Your task to perform on an android device: make emails show in primary in the gmail app Image 0: 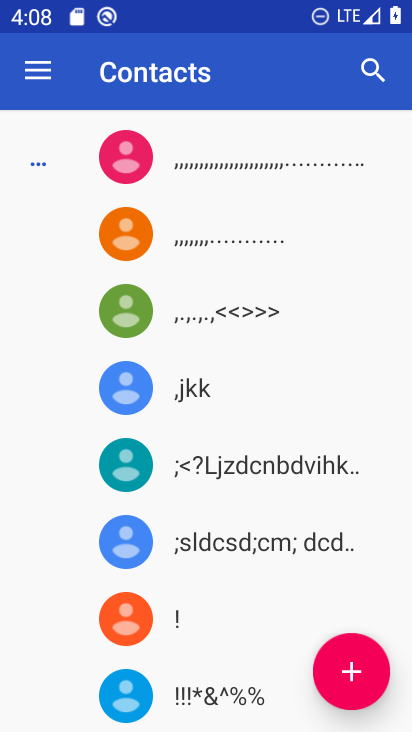
Step 0: press home button
Your task to perform on an android device: make emails show in primary in the gmail app Image 1: 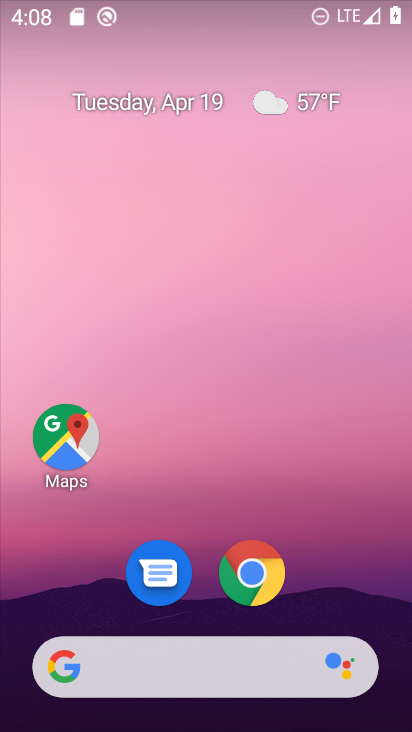
Step 1: drag from (344, 598) to (377, 17)
Your task to perform on an android device: make emails show in primary in the gmail app Image 2: 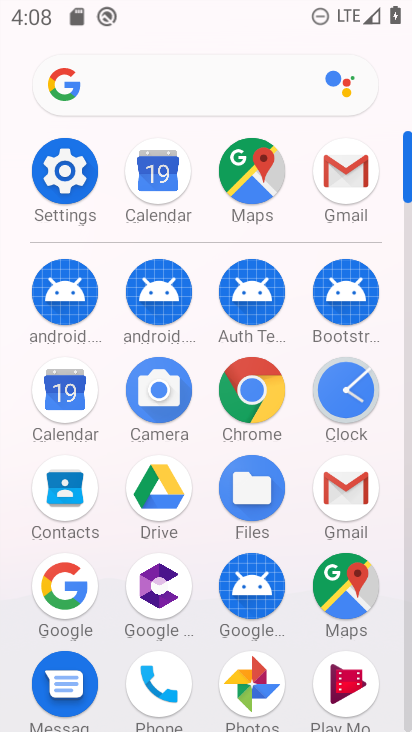
Step 2: click (350, 186)
Your task to perform on an android device: make emails show in primary in the gmail app Image 3: 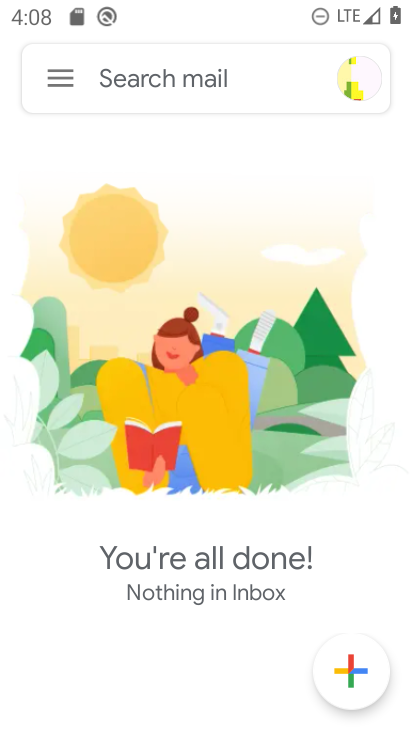
Step 3: click (62, 87)
Your task to perform on an android device: make emails show in primary in the gmail app Image 4: 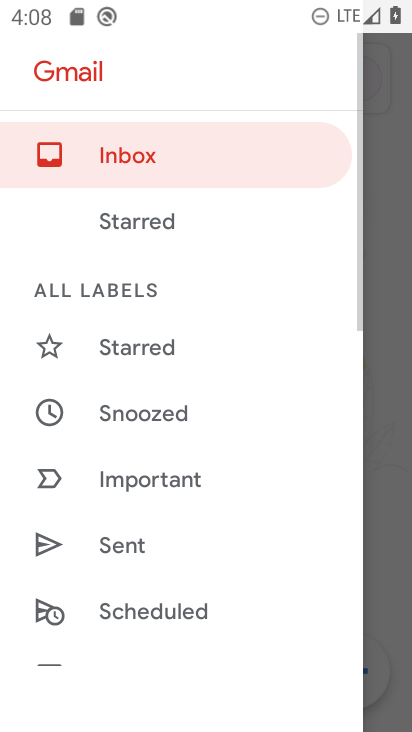
Step 4: drag from (197, 545) to (204, 126)
Your task to perform on an android device: make emails show in primary in the gmail app Image 5: 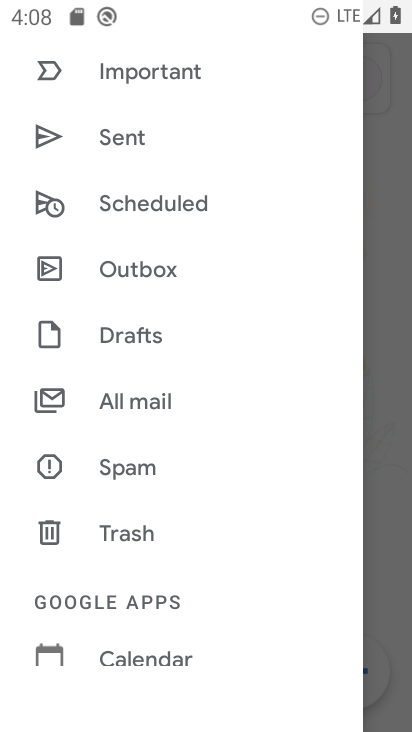
Step 5: drag from (203, 556) to (189, 130)
Your task to perform on an android device: make emails show in primary in the gmail app Image 6: 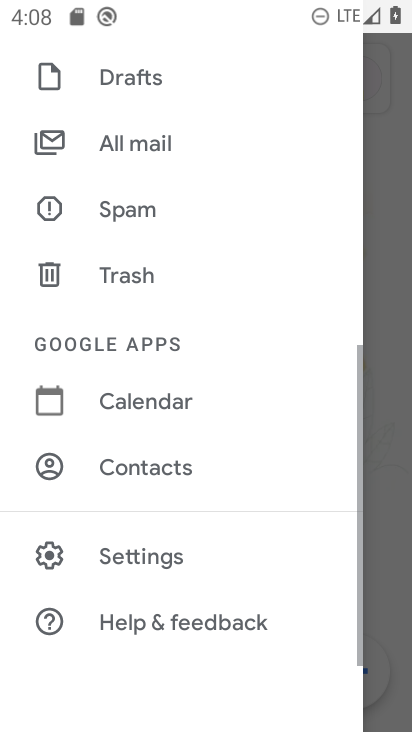
Step 6: click (122, 558)
Your task to perform on an android device: make emails show in primary in the gmail app Image 7: 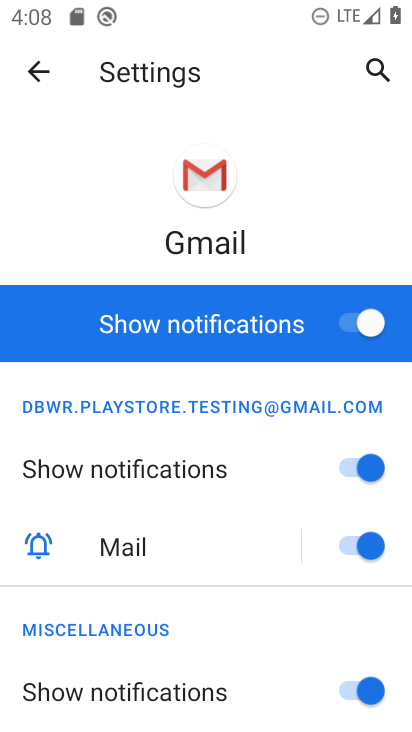
Step 7: drag from (177, 555) to (174, 164)
Your task to perform on an android device: make emails show in primary in the gmail app Image 8: 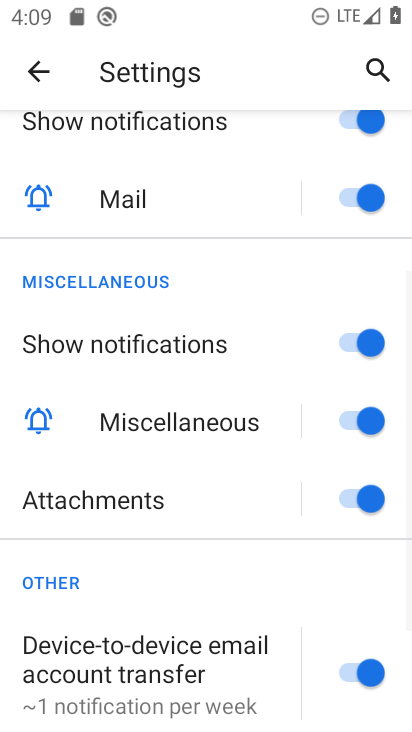
Step 8: drag from (141, 500) to (126, 110)
Your task to perform on an android device: make emails show in primary in the gmail app Image 9: 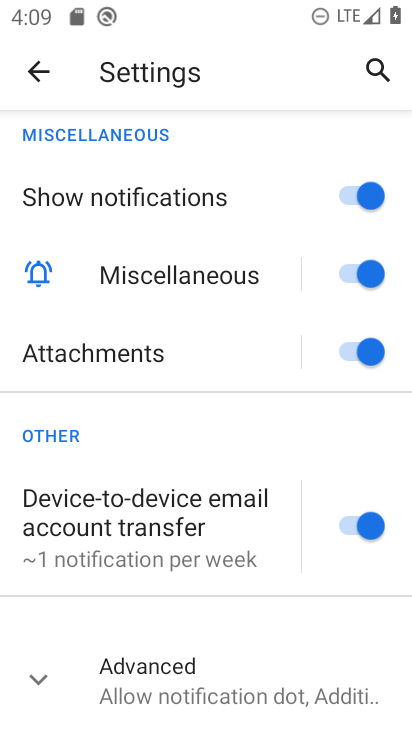
Step 9: drag from (151, 446) to (158, 687)
Your task to perform on an android device: make emails show in primary in the gmail app Image 10: 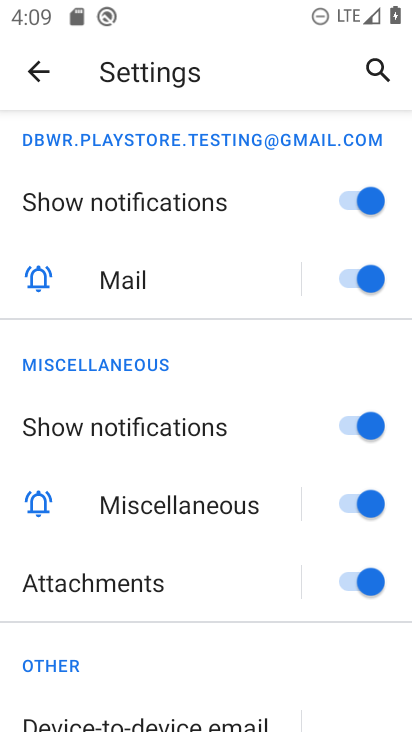
Step 10: drag from (132, 298) to (146, 648)
Your task to perform on an android device: make emails show in primary in the gmail app Image 11: 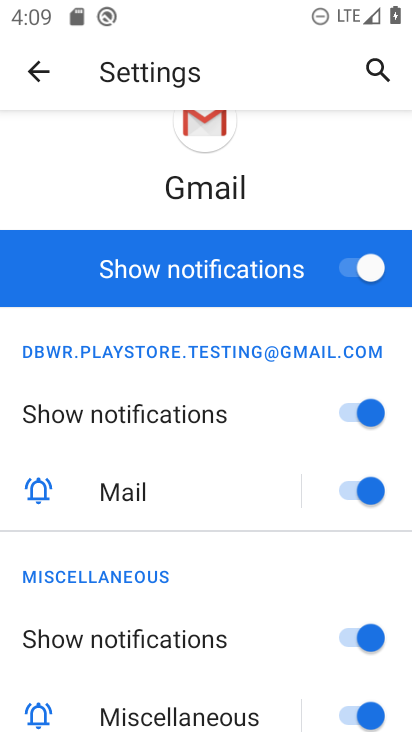
Step 11: click (23, 74)
Your task to perform on an android device: make emails show in primary in the gmail app Image 12: 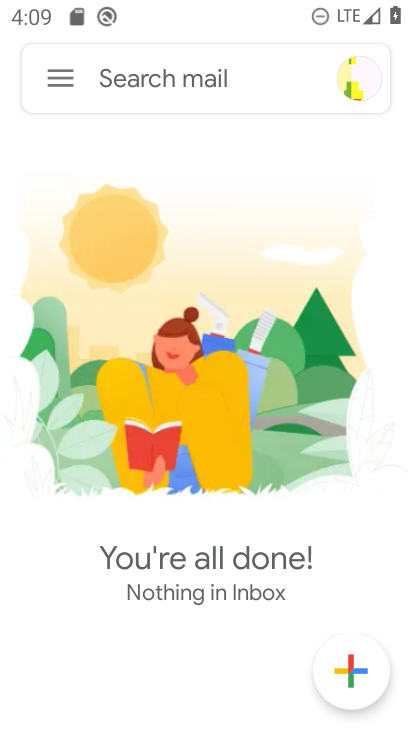
Step 12: click (66, 84)
Your task to perform on an android device: make emails show in primary in the gmail app Image 13: 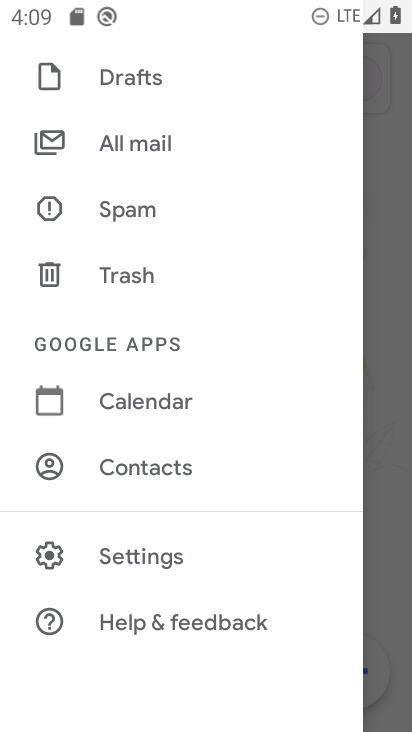
Step 13: click (113, 547)
Your task to perform on an android device: make emails show in primary in the gmail app Image 14: 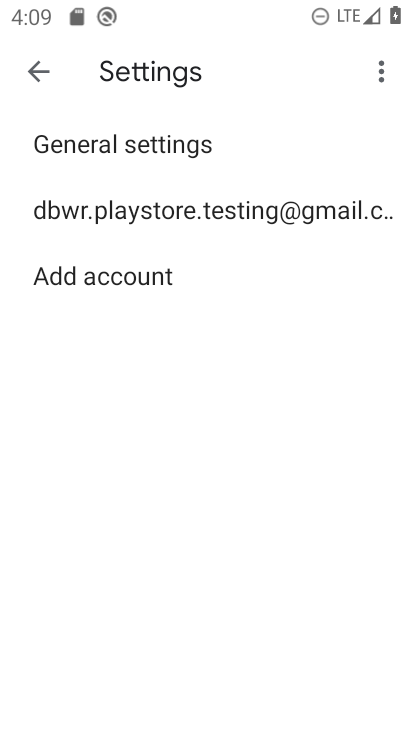
Step 14: click (142, 217)
Your task to perform on an android device: make emails show in primary in the gmail app Image 15: 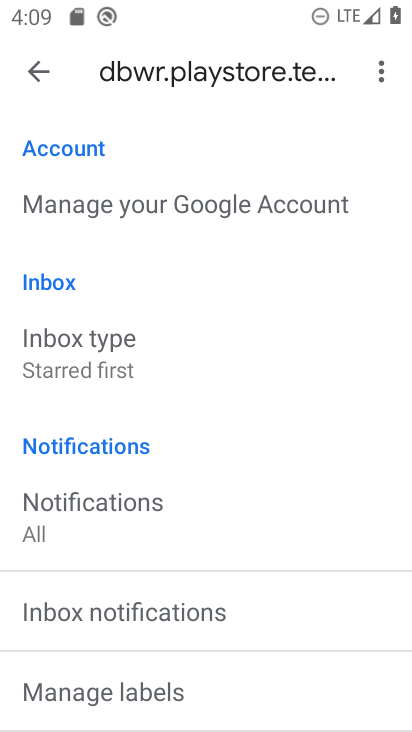
Step 15: task complete